Your task to perform on an android device: Check the news Image 0: 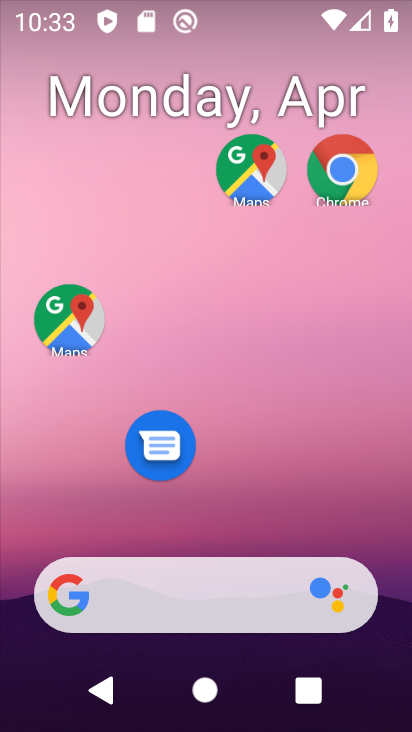
Step 0: drag from (117, 389) to (405, 368)
Your task to perform on an android device: Check the news Image 1: 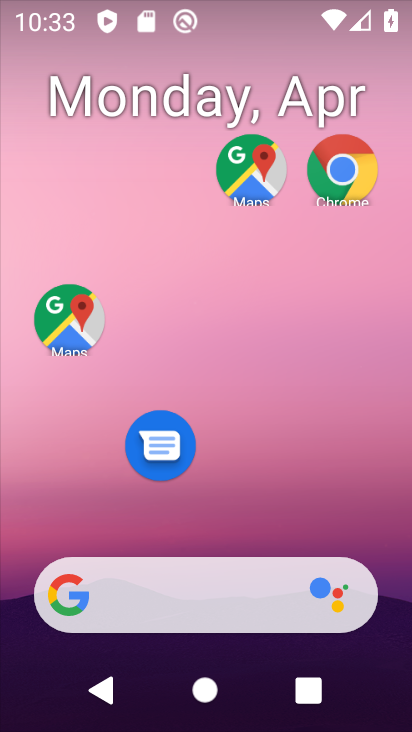
Step 1: drag from (12, 268) to (377, 292)
Your task to perform on an android device: Check the news Image 2: 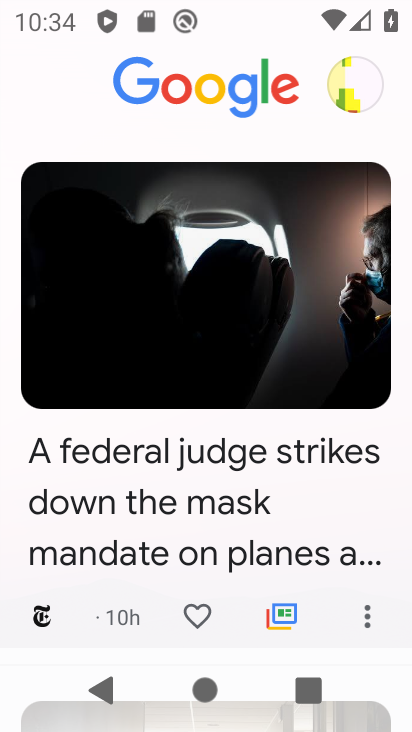
Step 2: drag from (226, 561) to (395, 276)
Your task to perform on an android device: Check the news Image 3: 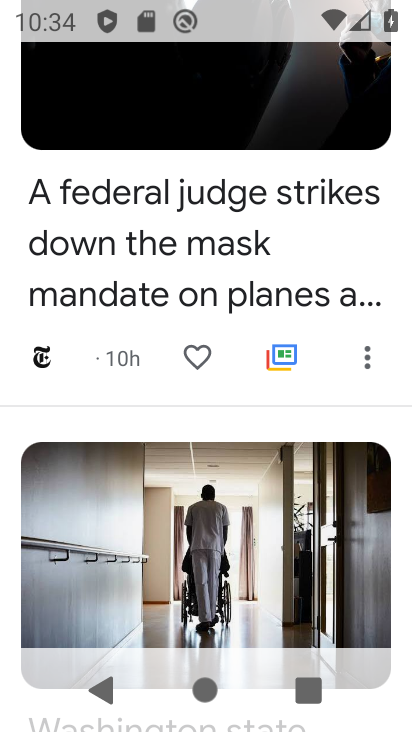
Step 3: click (139, 253)
Your task to perform on an android device: Check the news Image 4: 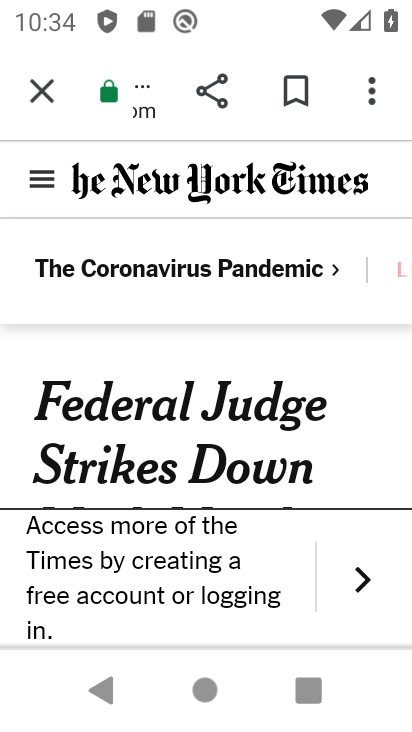
Step 4: task complete